Your task to perform on an android device: open chrome and create a bookmark for the current page Image 0: 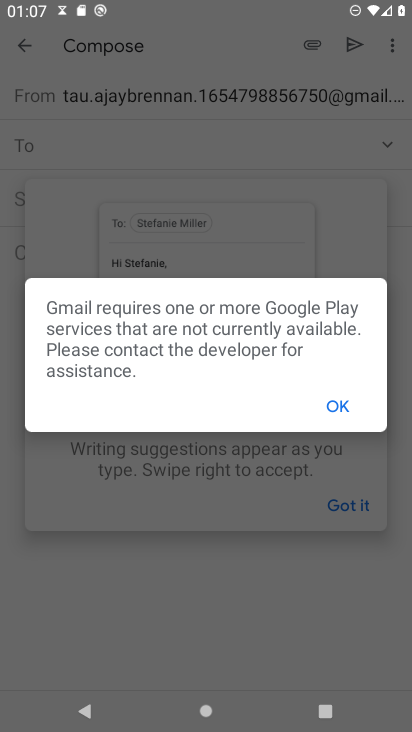
Step 0: press home button
Your task to perform on an android device: open chrome and create a bookmark for the current page Image 1: 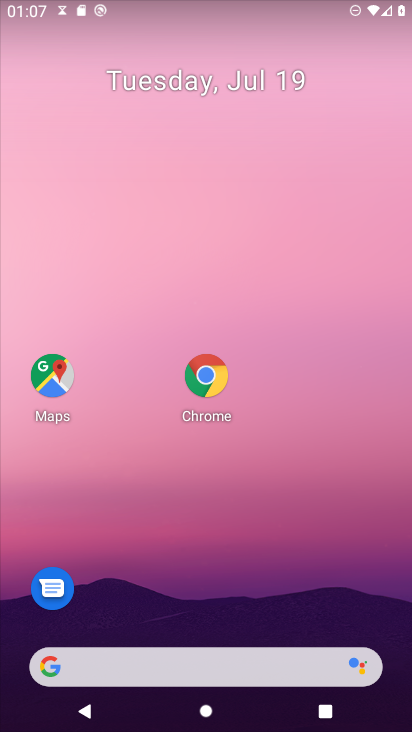
Step 1: click (204, 380)
Your task to perform on an android device: open chrome and create a bookmark for the current page Image 2: 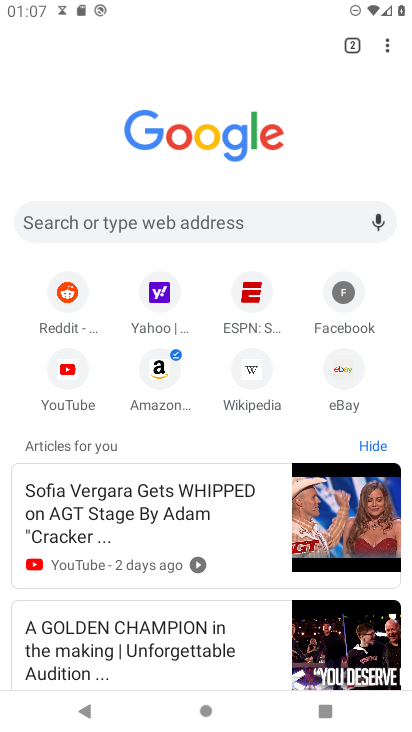
Step 2: click (384, 41)
Your task to perform on an android device: open chrome and create a bookmark for the current page Image 3: 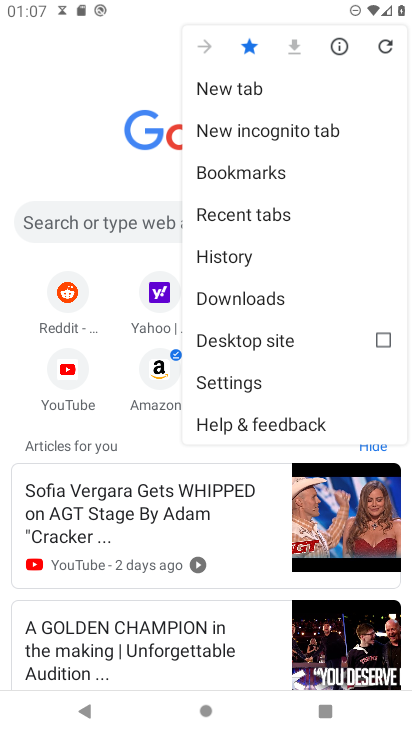
Step 3: task complete